Your task to perform on an android device: What's the weather going to be this weekend? Image 0: 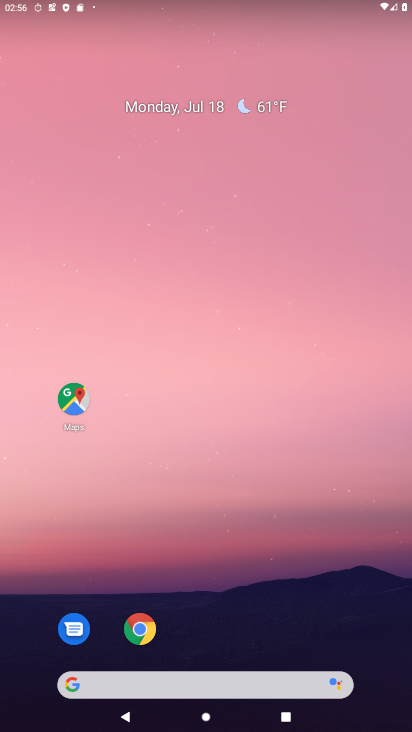
Step 0: drag from (236, 686) to (188, 259)
Your task to perform on an android device: What's the weather going to be this weekend? Image 1: 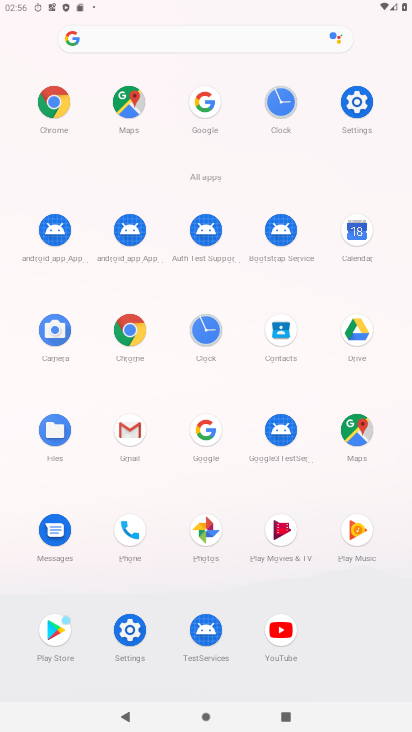
Step 1: click (130, 332)
Your task to perform on an android device: What's the weather going to be this weekend? Image 2: 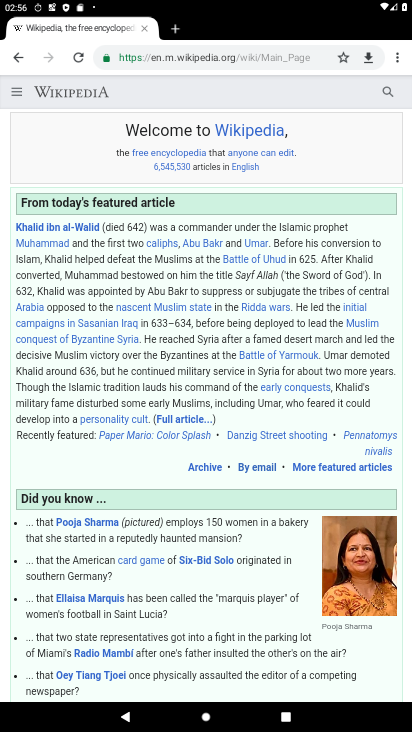
Step 2: click (319, 59)
Your task to perform on an android device: What's the weather going to be this weekend? Image 3: 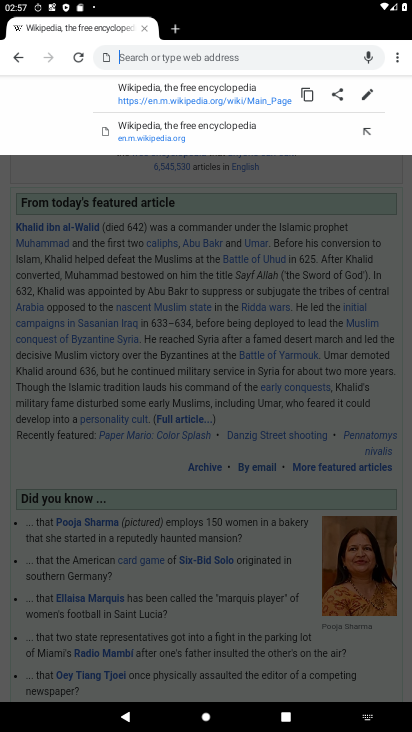
Step 3: type "What's weather going to be this weekend?"
Your task to perform on an android device: What's the weather going to be this weekend? Image 4: 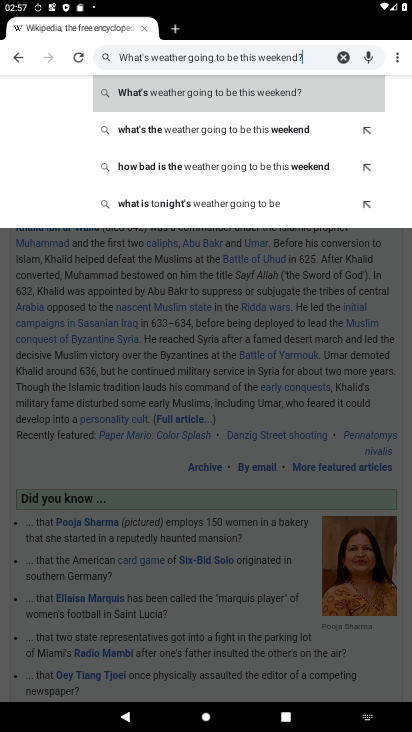
Step 4: click (229, 95)
Your task to perform on an android device: What's the weather going to be this weekend? Image 5: 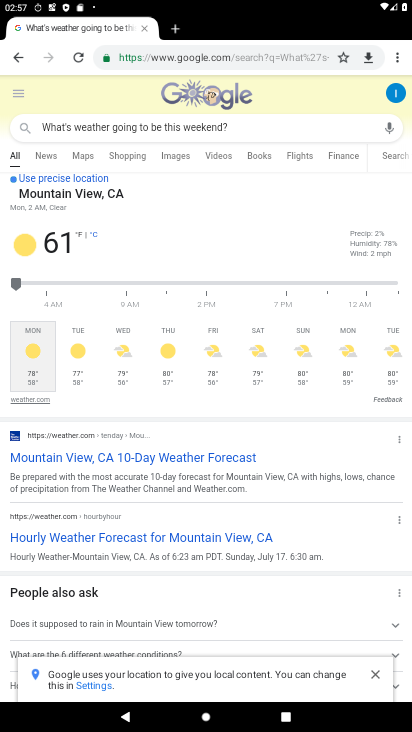
Step 5: click (254, 380)
Your task to perform on an android device: What's the weather going to be this weekend? Image 6: 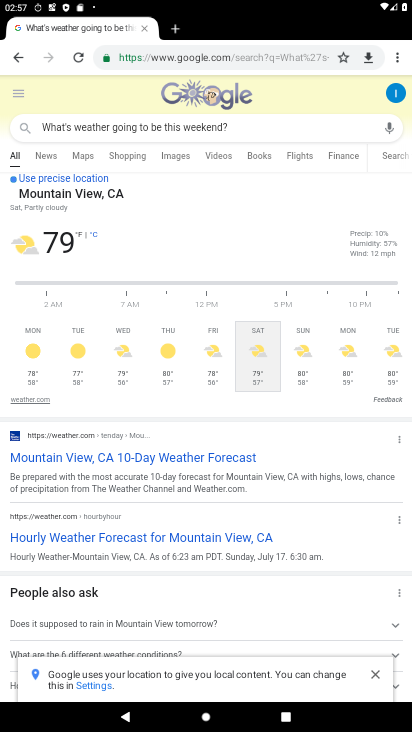
Step 6: task complete